Your task to perform on an android device: Do I have any events this weekend? Image 0: 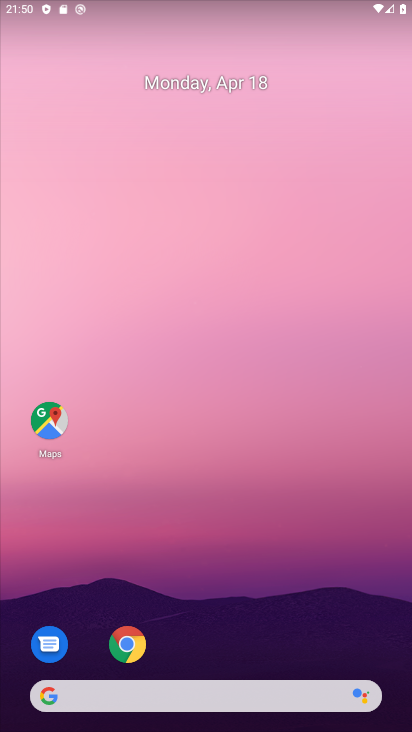
Step 0: drag from (202, 621) to (372, 12)
Your task to perform on an android device: Do I have any events this weekend? Image 1: 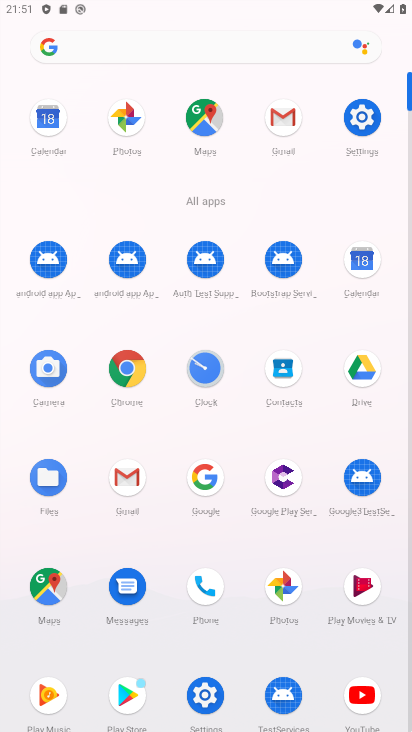
Step 1: click (357, 270)
Your task to perform on an android device: Do I have any events this weekend? Image 2: 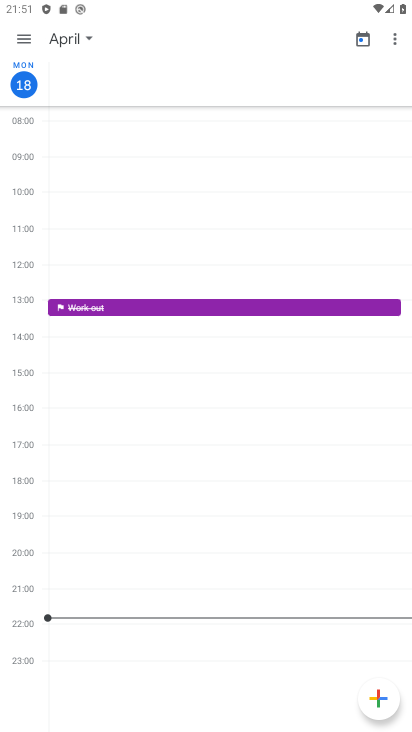
Step 2: click (31, 33)
Your task to perform on an android device: Do I have any events this weekend? Image 3: 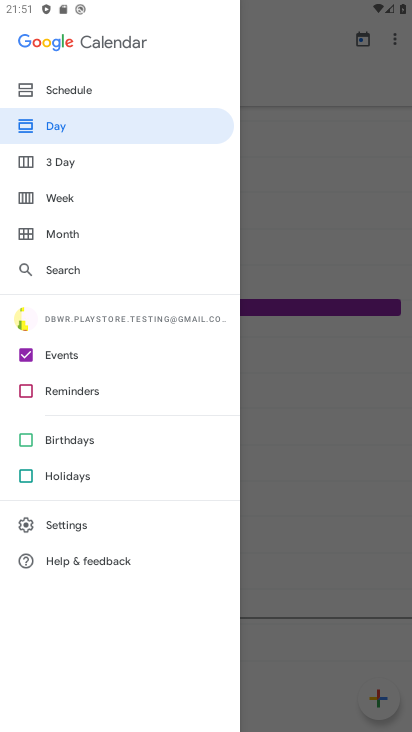
Step 3: click (70, 191)
Your task to perform on an android device: Do I have any events this weekend? Image 4: 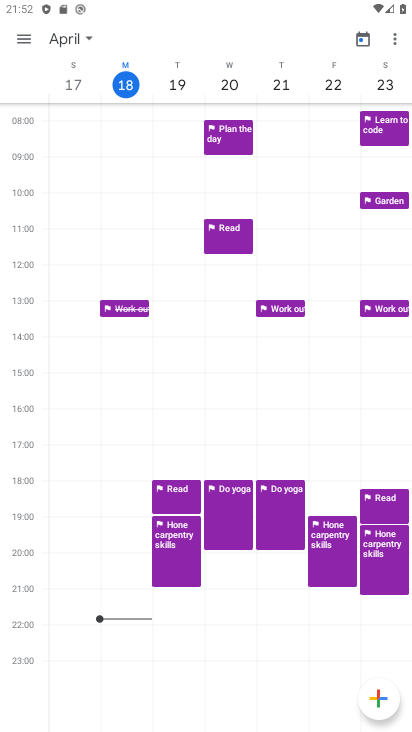
Step 4: task complete